Your task to perform on an android device: snooze an email in the gmail app Image 0: 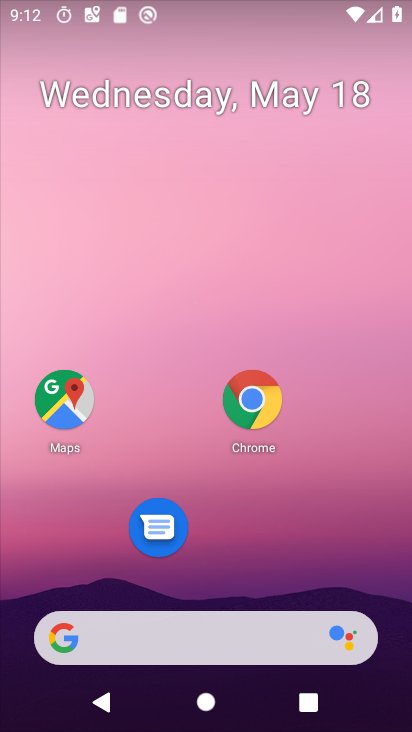
Step 0: drag from (310, 565) to (228, 156)
Your task to perform on an android device: snooze an email in the gmail app Image 1: 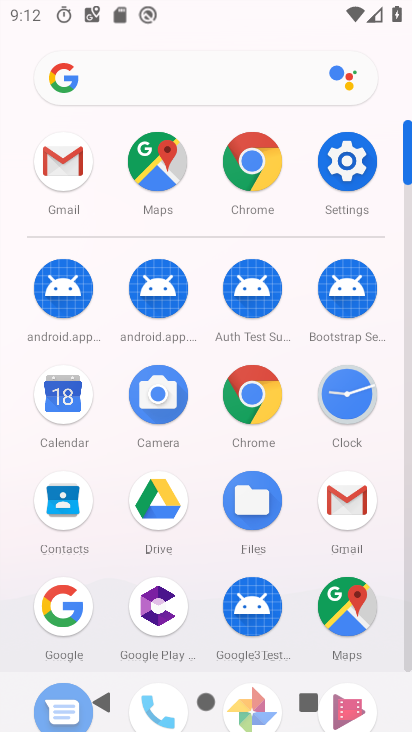
Step 1: click (81, 167)
Your task to perform on an android device: snooze an email in the gmail app Image 2: 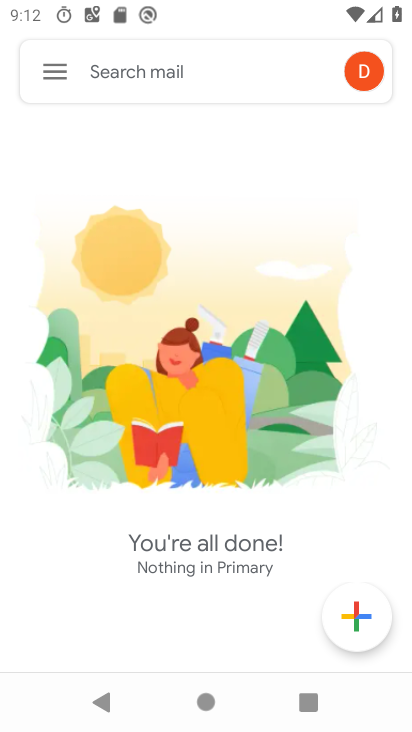
Step 2: click (57, 68)
Your task to perform on an android device: snooze an email in the gmail app Image 3: 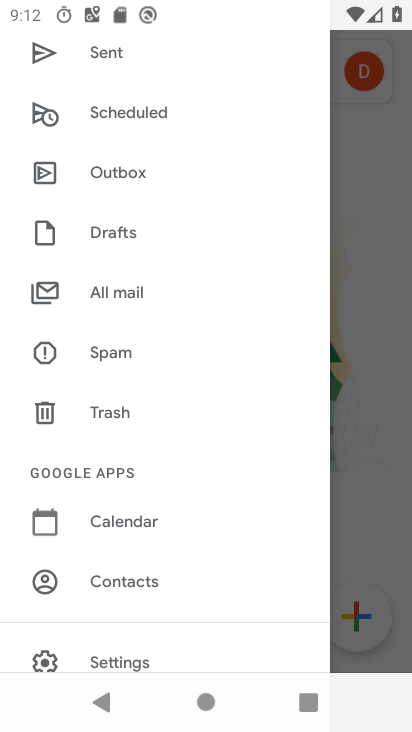
Step 3: click (115, 298)
Your task to perform on an android device: snooze an email in the gmail app Image 4: 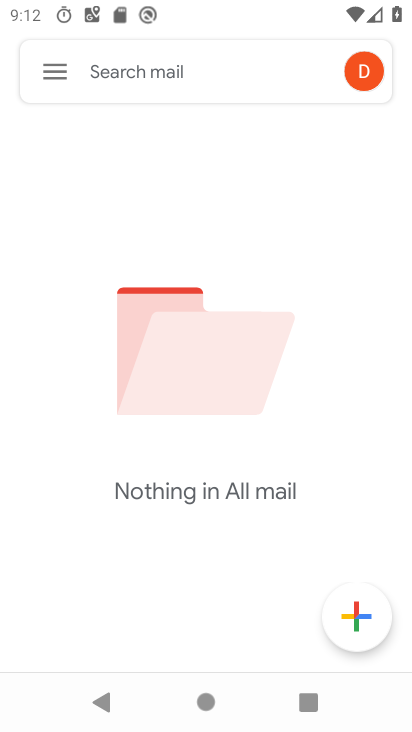
Step 4: task complete